Your task to perform on an android device: What's the weather going to be tomorrow? Image 0: 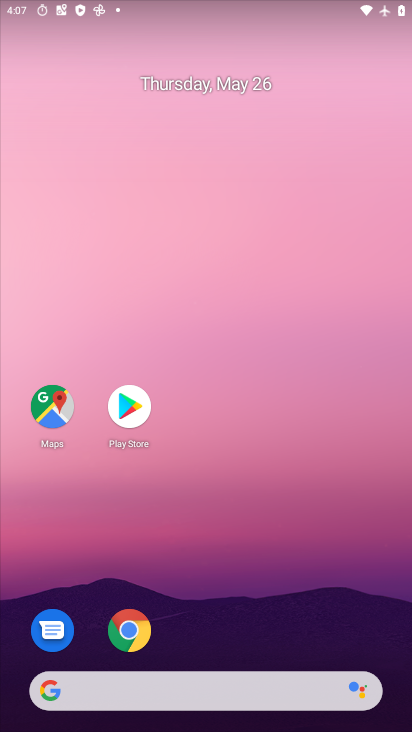
Step 0: drag from (228, 634) to (234, 179)
Your task to perform on an android device: What's the weather going to be tomorrow? Image 1: 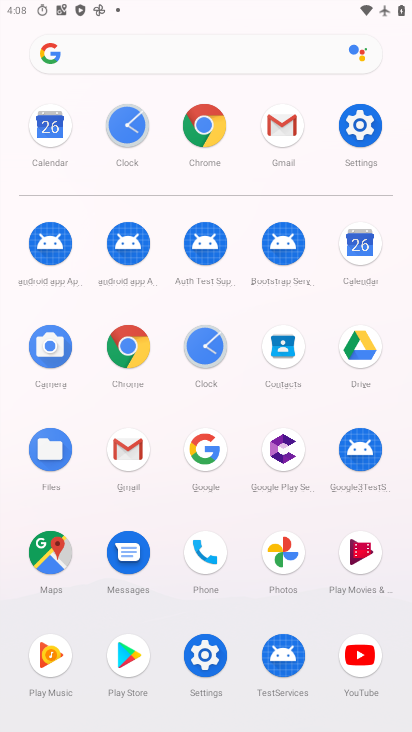
Step 1: click (207, 462)
Your task to perform on an android device: What's the weather going to be tomorrow? Image 2: 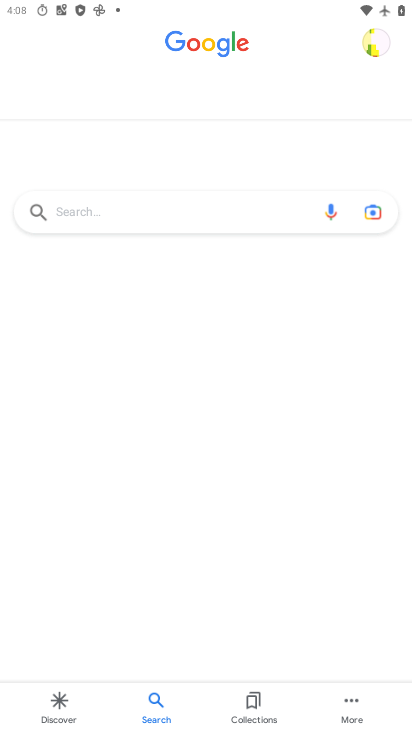
Step 2: click (239, 215)
Your task to perform on an android device: What's the weather going to be tomorrow? Image 3: 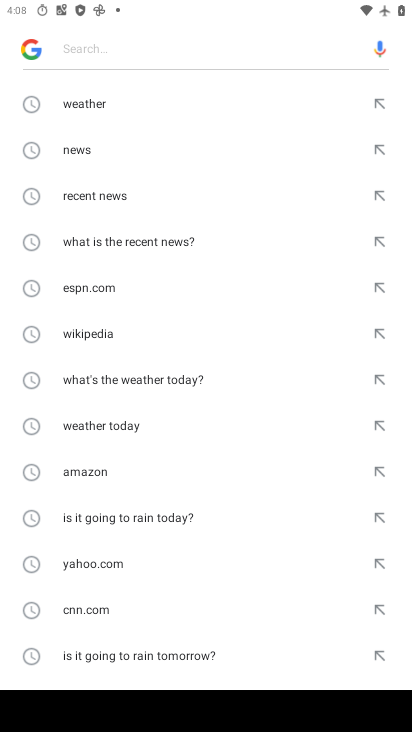
Step 3: click (84, 100)
Your task to perform on an android device: What's the weather going to be tomorrow? Image 4: 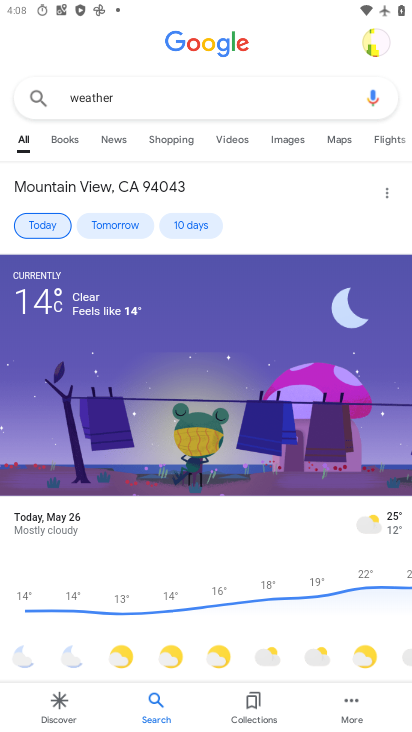
Step 4: click (110, 221)
Your task to perform on an android device: What's the weather going to be tomorrow? Image 5: 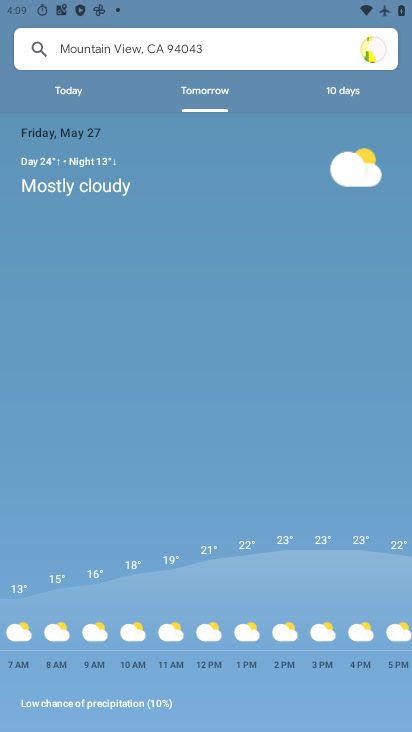
Step 5: task complete